Your task to perform on an android device: turn on showing notifications on the lock screen Image 0: 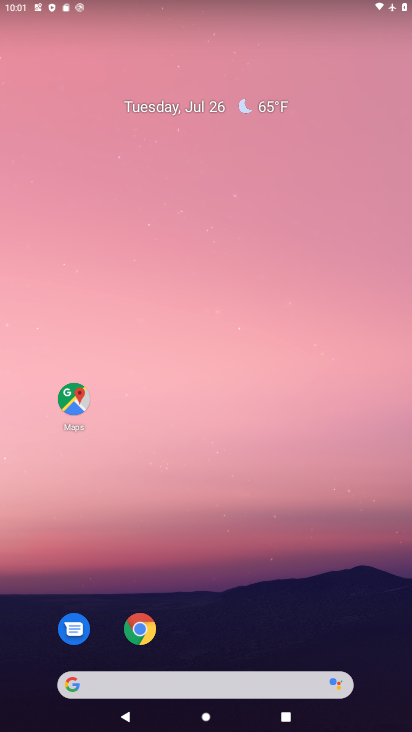
Step 0: drag from (334, 622) to (224, 65)
Your task to perform on an android device: turn on showing notifications on the lock screen Image 1: 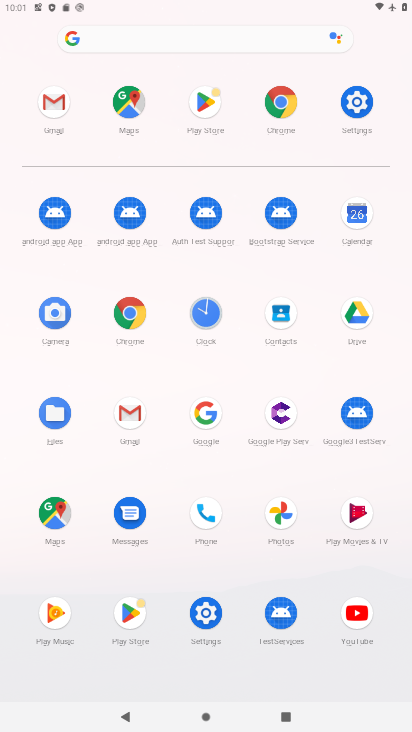
Step 1: click (352, 101)
Your task to perform on an android device: turn on showing notifications on the lock screen Image 2: 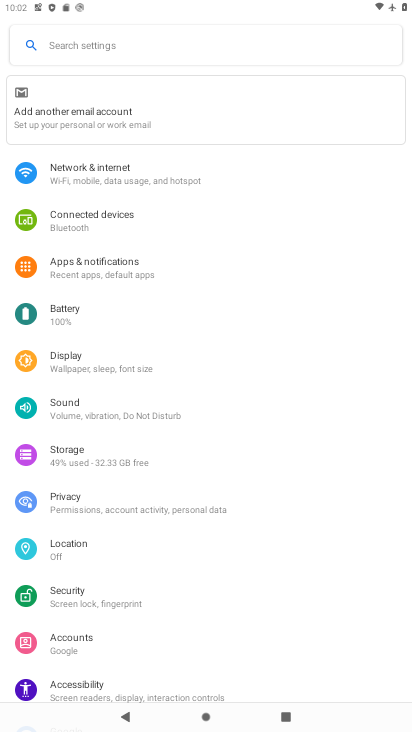
Step 2: click (118, 261)
Your task to perform on an android device: turn on showing notifications on the lock screen Image 3: 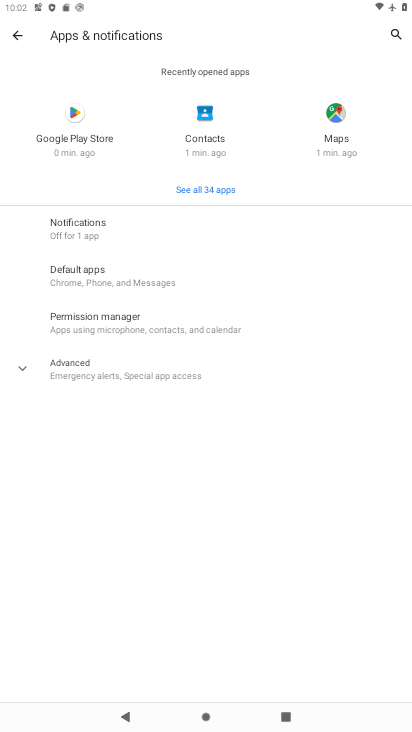
Step 3: click (111, 235)
Your task to perform on an android device: turn on showing notifications on the lock screen Image 4: 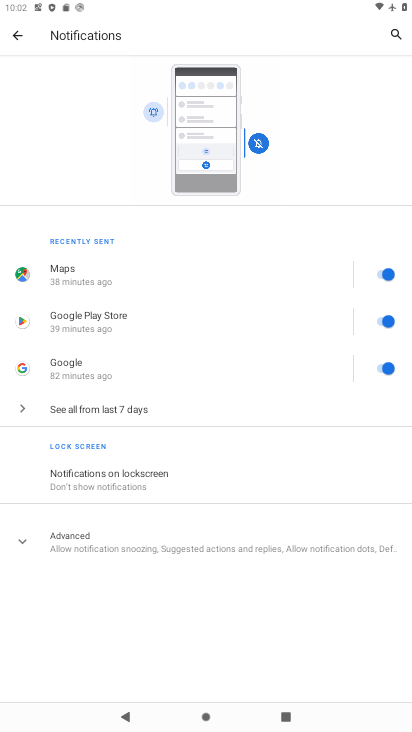
Step 4: click (114, 473)
Your task to perform on an android device: turn on showing notifications on the lock screen Image 5: 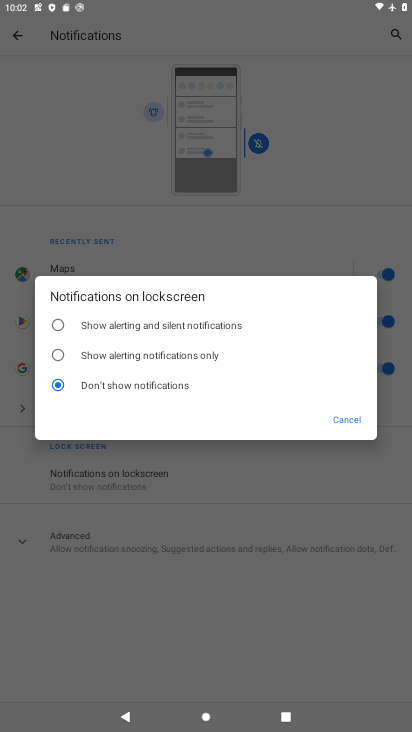
Step 5: click (138, 352)
Your task to perform on an android device: turn on showing notifications on the lock screen Image 6: 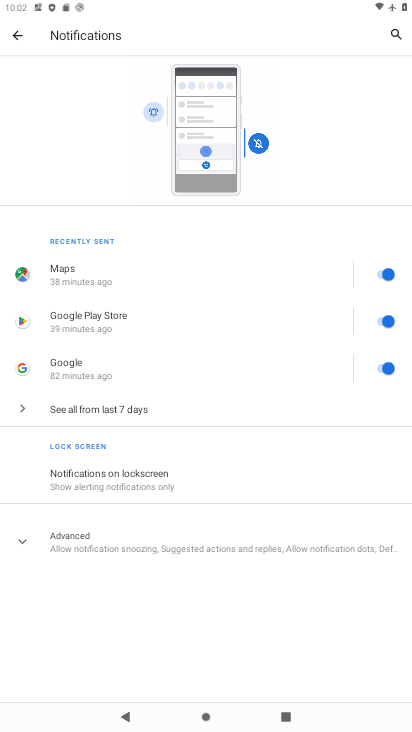
Step 6: task complete